Your task to perform on an android device: Go to Google Image 0: 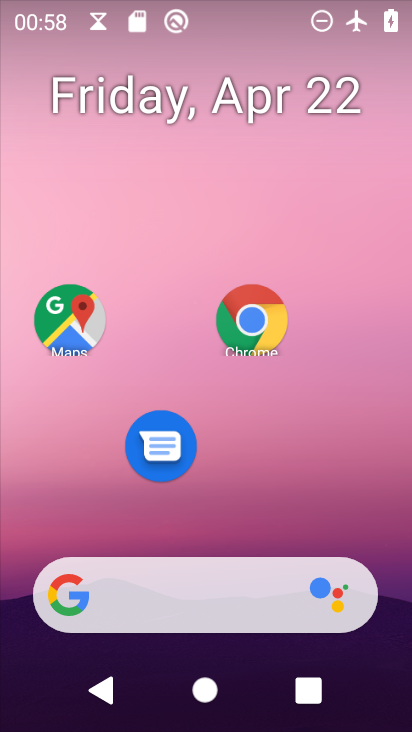
Step 0: click (297, 228)
Your task to perform on an android device: Go to Google Image 1: 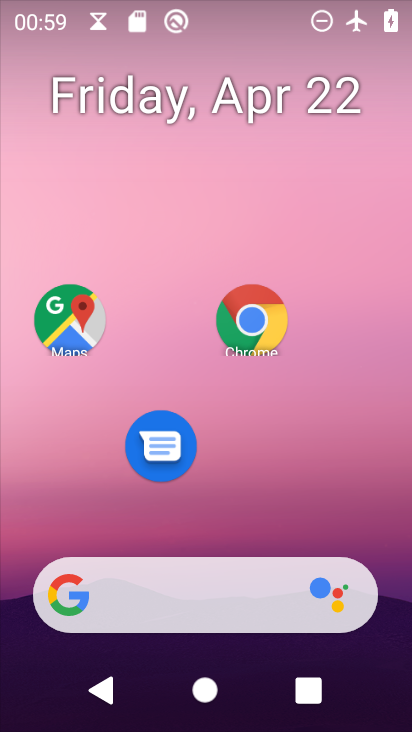
Step 1: drag from (217, 506) to (225, 173)
Your task to perform on an android device: Go to Google Image 2: 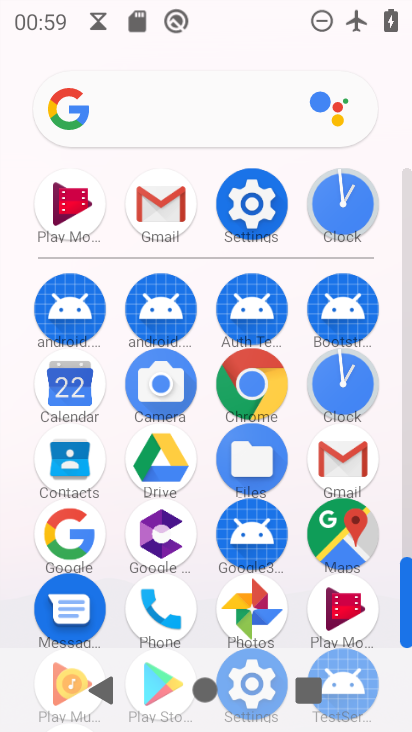
Step 2: drag from (204, 564) to (173, 68)
Your task to perform on an android device: Go to Google Image 3: 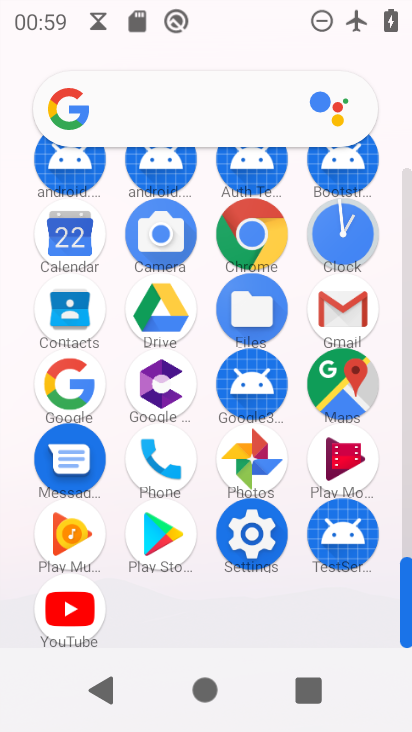
Step 3: click (63, 382)
Your task to perform on an android device: Go to Google Image 4: 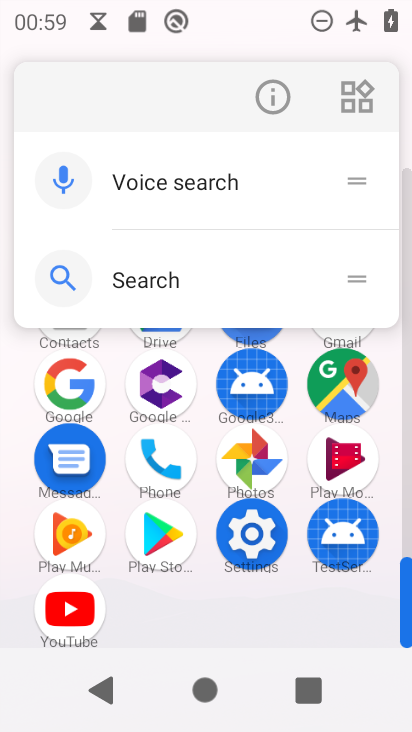
Step 4: click (272, 93)
Your task to perform on an android device: Go to Google Image 5: 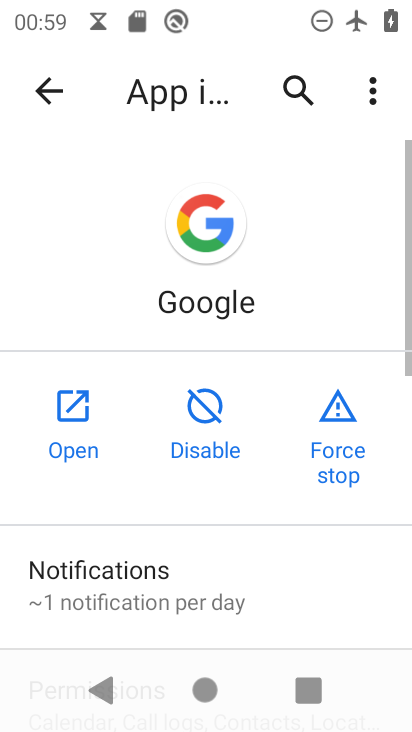
Step 5: click (89, 407)
Your task to perform on an android device: Go to Google Image 6: 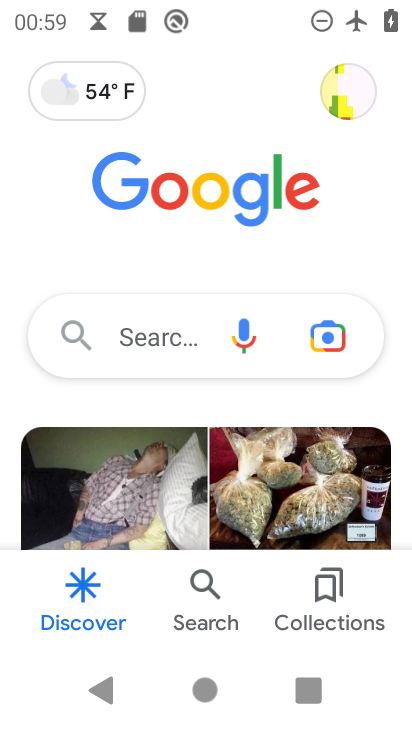
Step 6: task complete